Your task to perform on an android device: open app "TextNow: Call + Text Unlimited" (install if not already installed), go to login, and select forgot password Image 0: 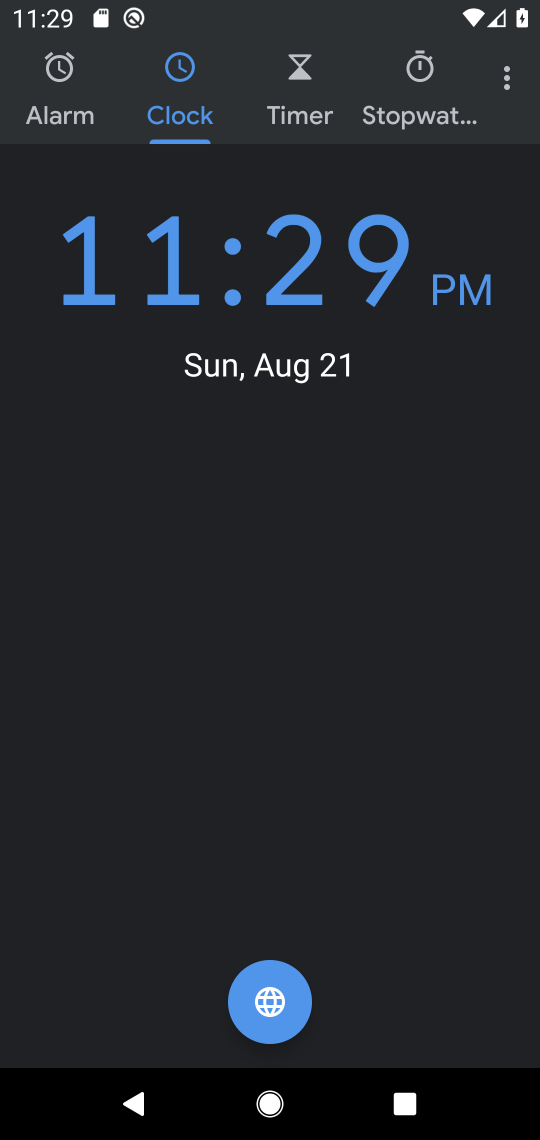
Step 0: press home button
Your task to perform on an android device: open app "TextNow: Call + Text Unlimited" (install if not already installed), go to login, and select forgot password Image 1: 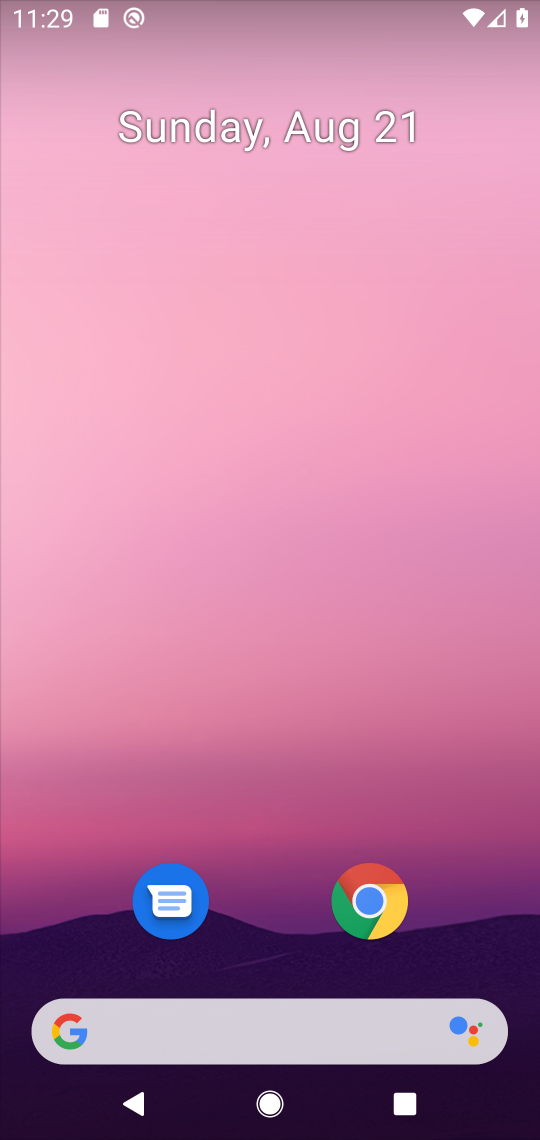
Step 1: drag from (279, 964) to (500, 1)
Your task to perform on an android device: open app "TextNow: Call + Text Unlimited" (install if not already installed), go to login, and select forgot password Image 2: 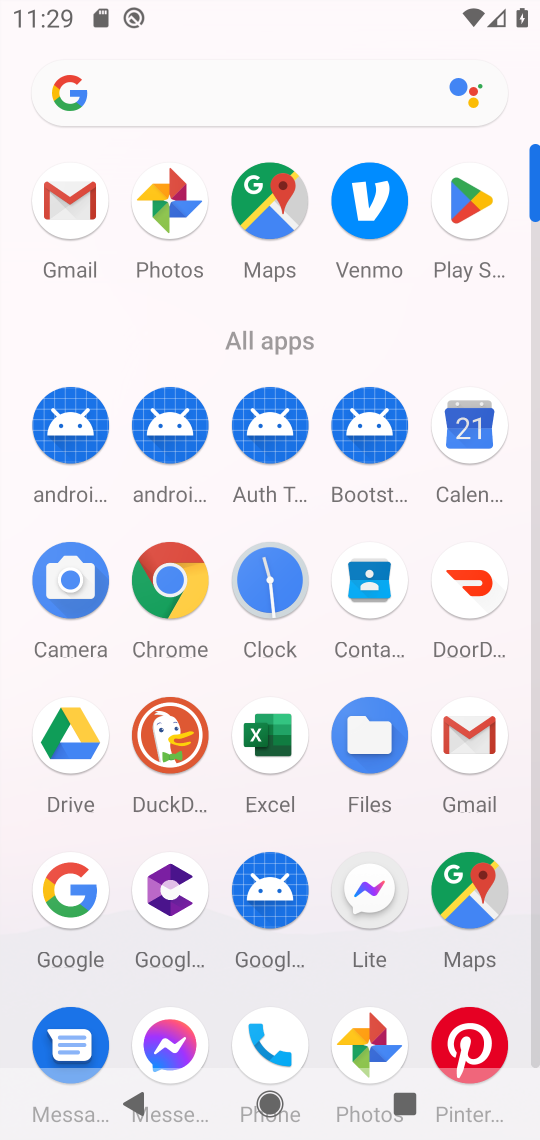
Step 2: click (466, 224)
Your task to perform on an android device: open app "TextNow: Call + Text Unlimited" (install if not already installed), go to login, and select forgot password Image 3: 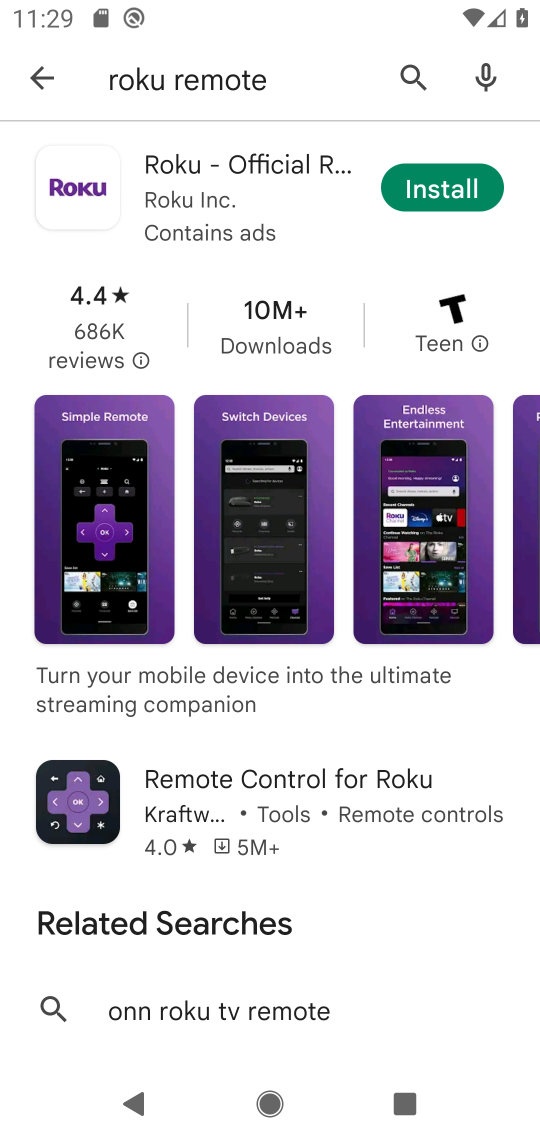
Step 3: click (432, 92)
Your task to perform on an android device: open app "TextNow: Call + Text Unlimited" (install if not already installed), go to login, and select forgot password Image 4: 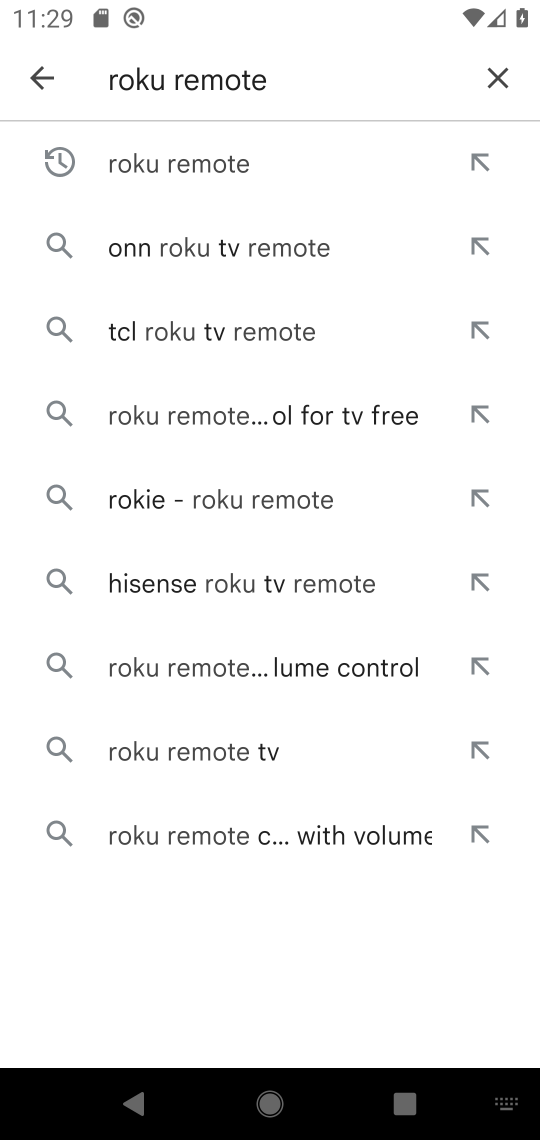
Step 4: click (497, 84)
Your task to perform on an android device: open app "TextNow: Call + Text Unlimited" (install if not already installed), go to login, and select forgot password Image 5: 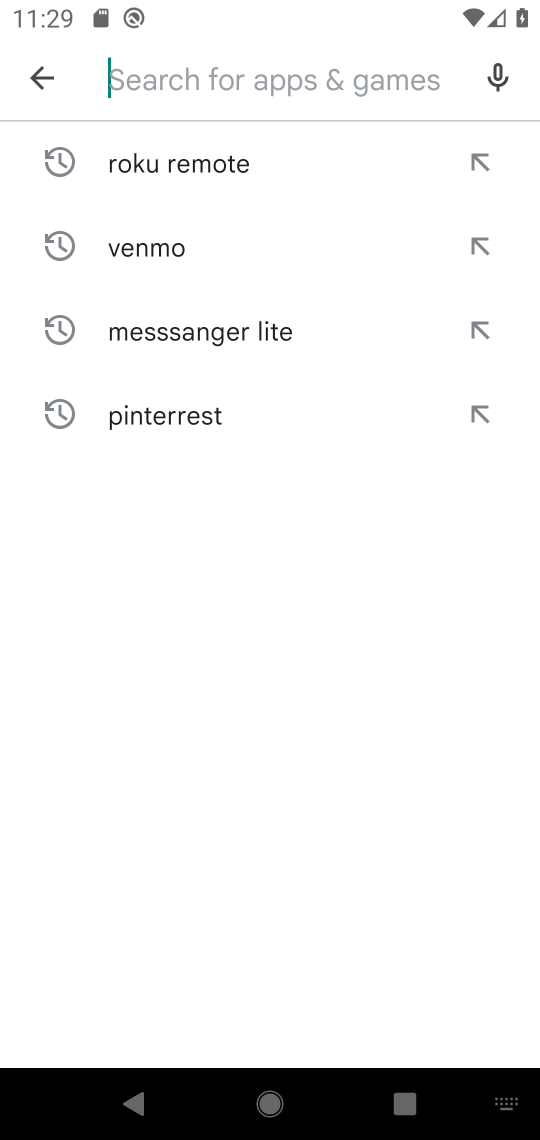
Step 5: type "text now"
Your task to perform on an android device: open app "TextNow: Call + Text Unlimited" (install if not already installed), go to login, and select forgot password Image 6: 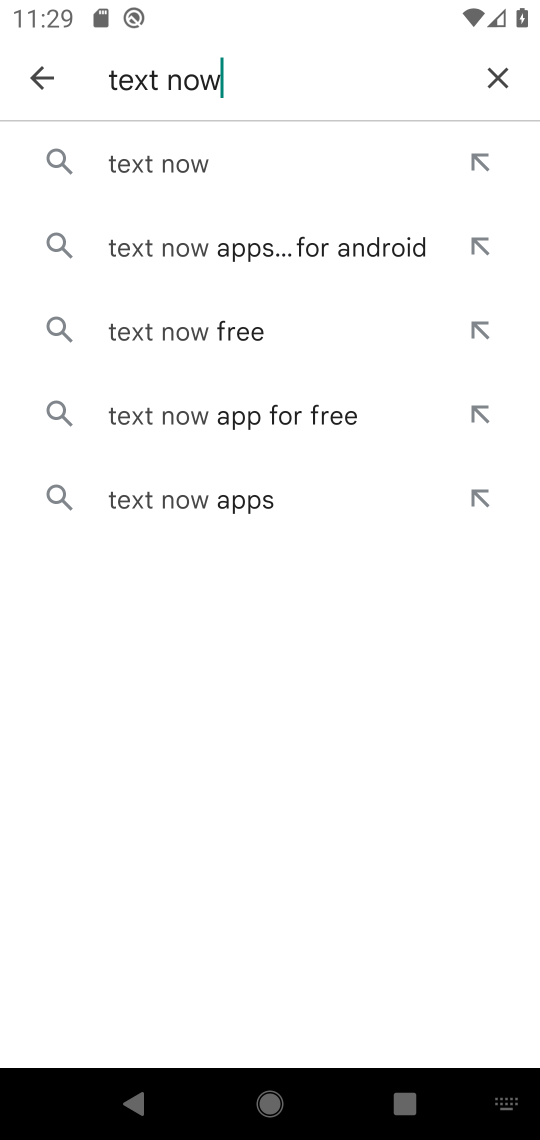
Step 6: click (183, 176)
Your task to perform on an android device: open app "TextNow: Call + Text Unlimited" (install if not already installed), go to login, and select forgot password Image 7: 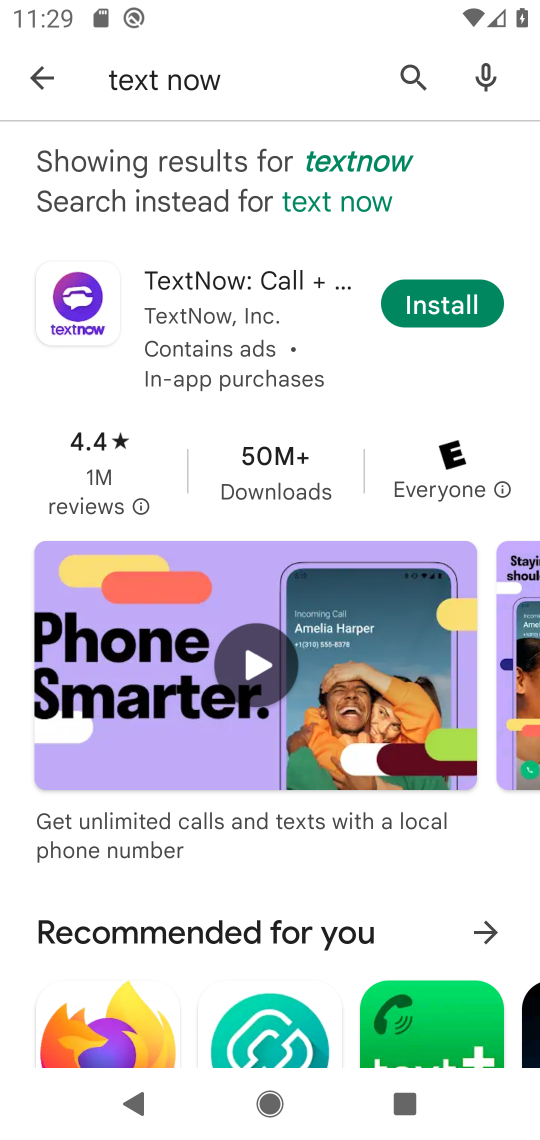
Step 7: click (460, 309)
Your task to perform on an android device: open app "TextNow: Call + Text Unlimited" (install if not already installed), go to login, and select forgot password Image 8: 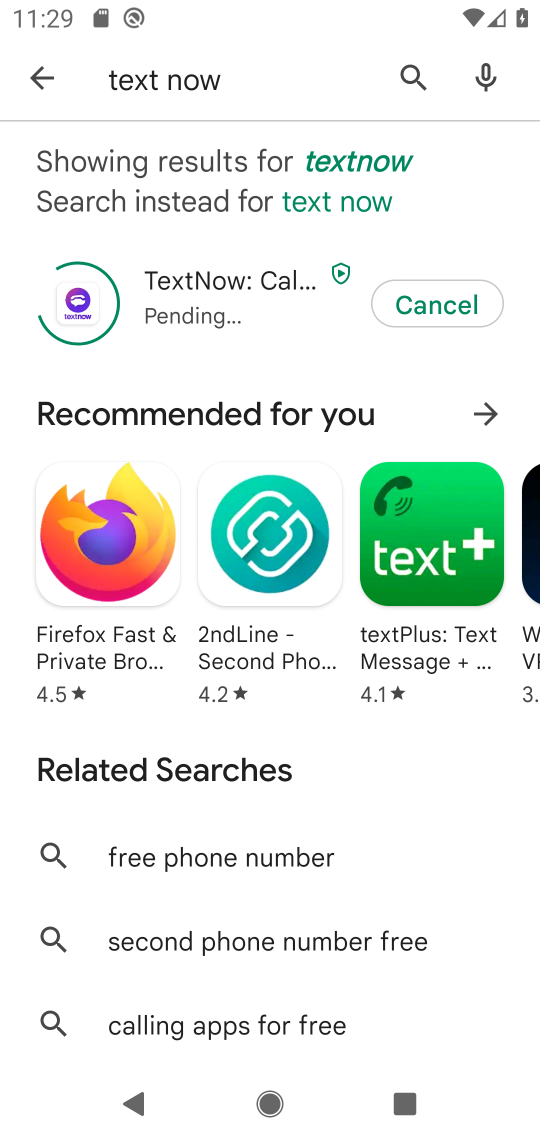
Step 8: task complete